Your task to perform on an android device: Open internet settings Image 0: 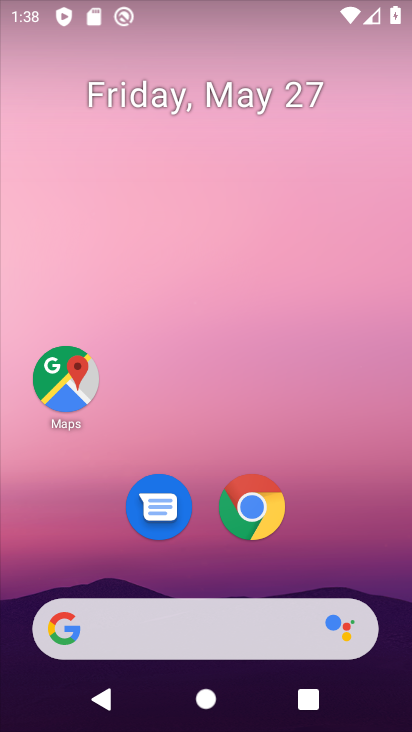
Step 0: drag from (198, 548) to (288, 145)
Your task to perform on an android device: Open internet settings Image 1: 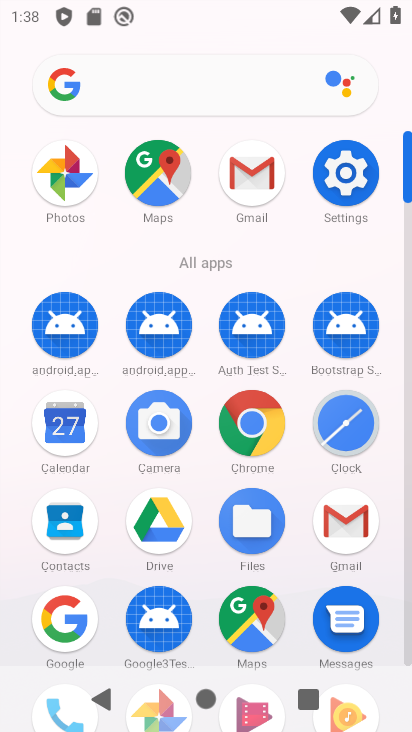
Step 1: click (342, 167)
Your task to perform on an android device: Open internet settings Image 2: 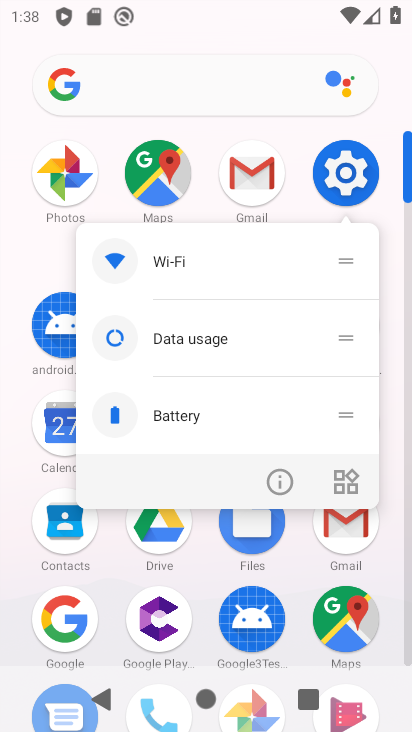
Step 2: click (282, 471)
Your task to perform on an android device: Open internet settings Image 3: 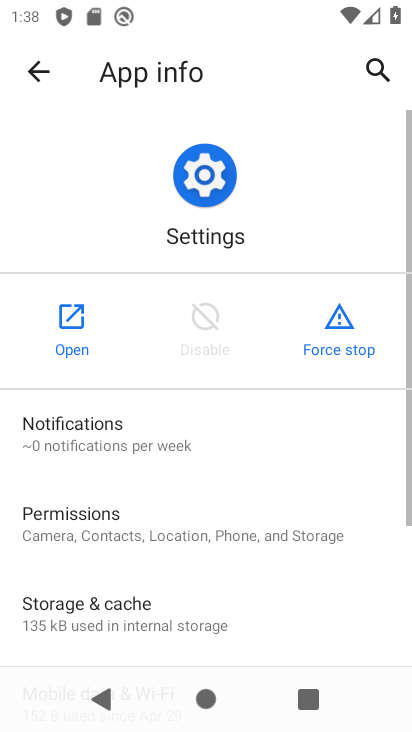
Step 3: click (75, 314)
Your task to perform on an android device: Open internet settings Image 4: 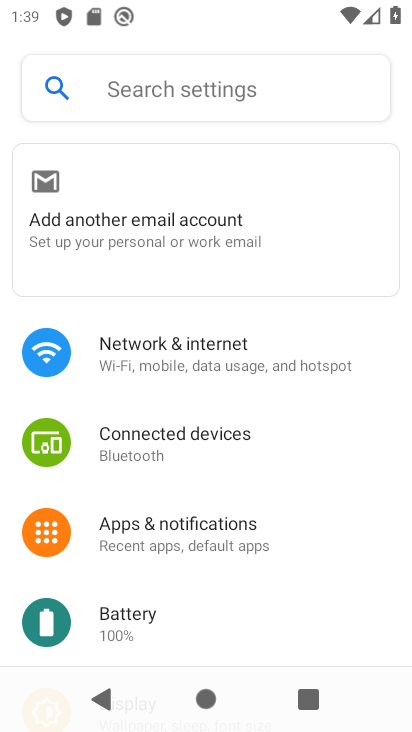
Step 4: click (174, 357)
Your task to perform on an android device: Open internet settings Image 5: 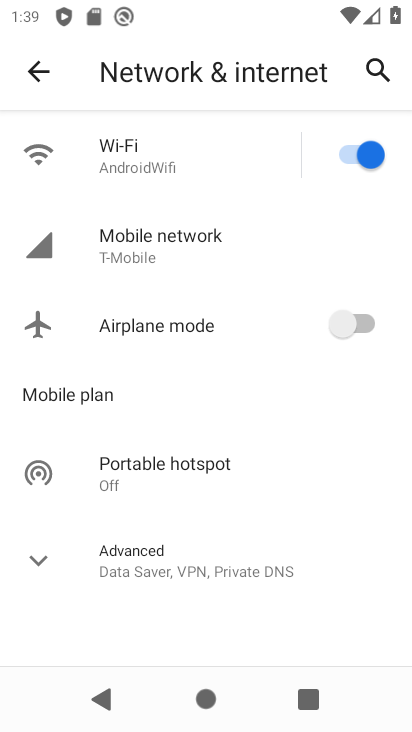
Step 5: click (190, 248)
Your task to perform on an android device: Open internet settings Image 6: 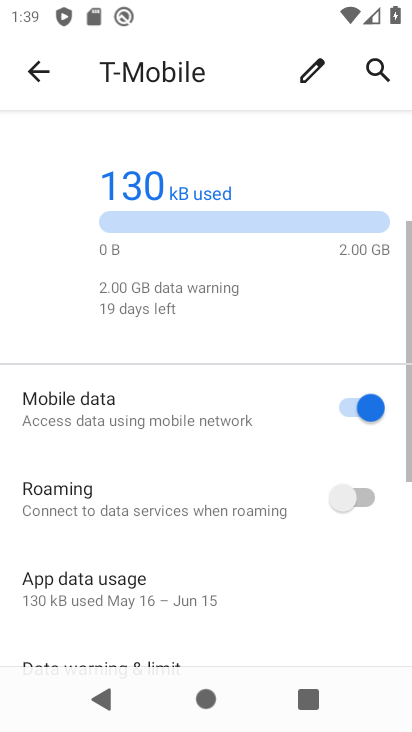
Step 6: task complete